Your task to perform on an android device: Open calendar and show me the fourth week of next month Image 0: 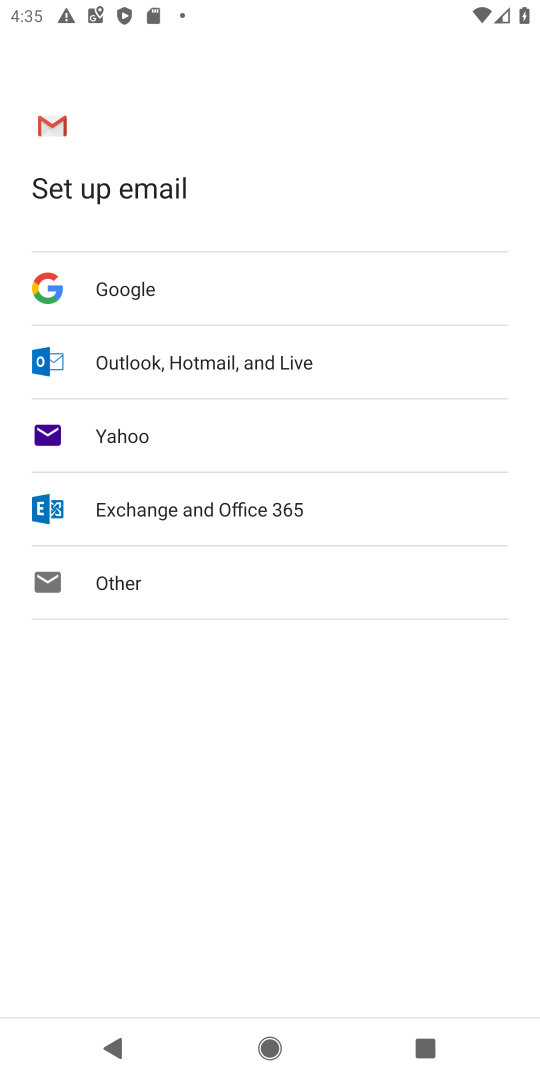
Step 0: press home button
Your task to perform on an android device: Open calendar and show me the fourth week of next month Image 1: 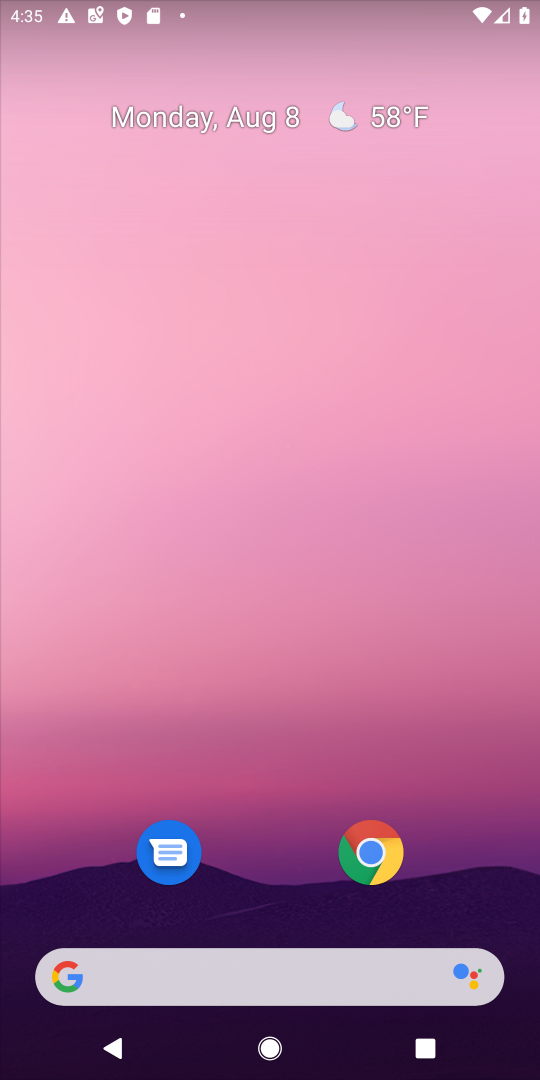
Step 1: drag from (216, 781) to (224, 41)
Your task to perform on an android device: Open calendar and show me the fourth week of next month Image 2: 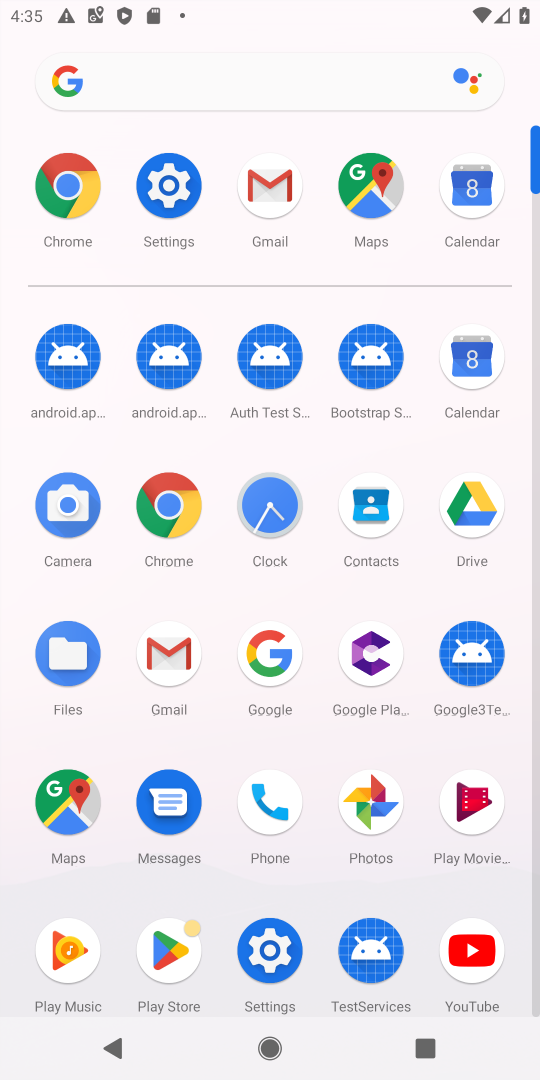
Step 2: click (469, 361)
Your task to perform on an android device: Open calendar and show me the fourth week of next month Image 3: 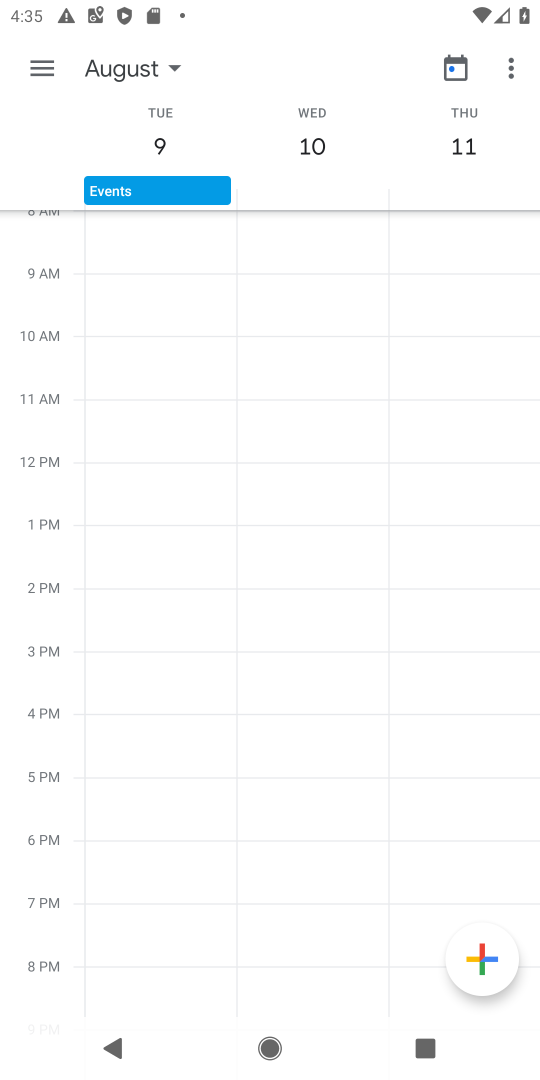
Step 3: click (103, 67)
Your task to perform on an android device: Open calendar and show me the fourth week of next month Image 4: 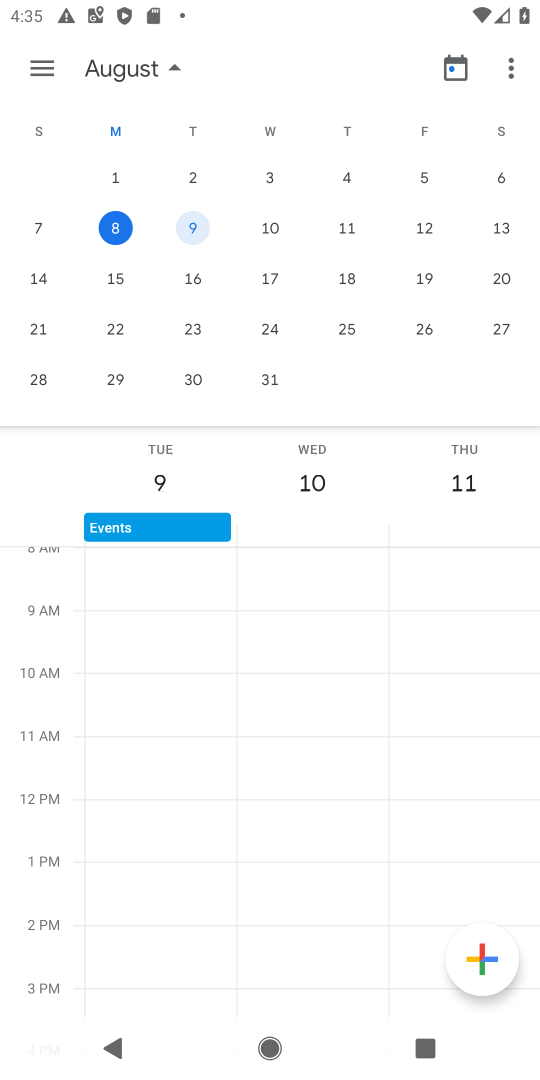
Step 4: drag from (258, 243) to (82, 247)
Your task to perform on an android device: Open calendar and show me the fourth week of next month Image 5: 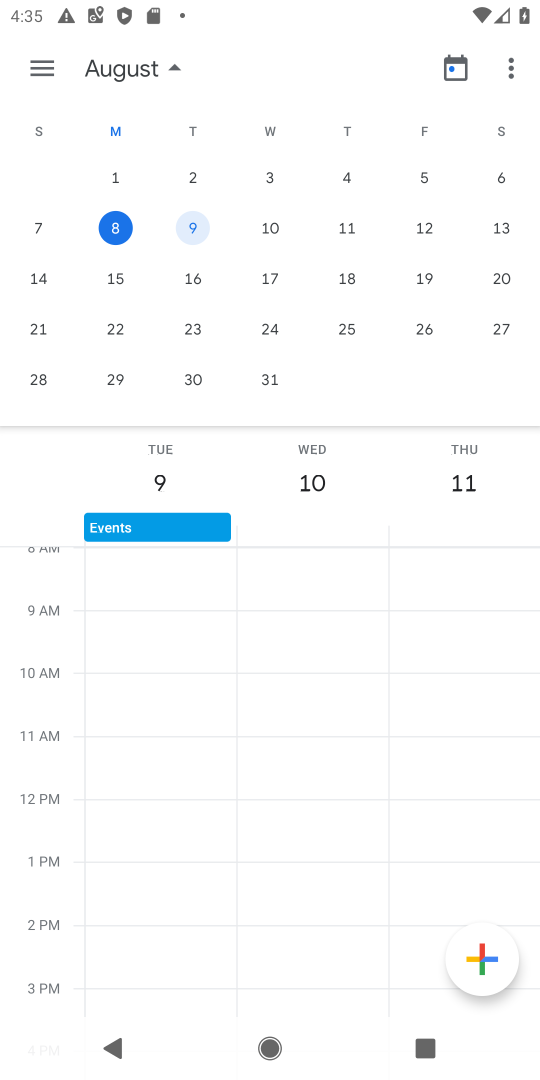
Step 5: drag from (483, 303) to (34, 277)
Your task to perform on an android device: Open calendar and show me the fourth week of next month Image 6: 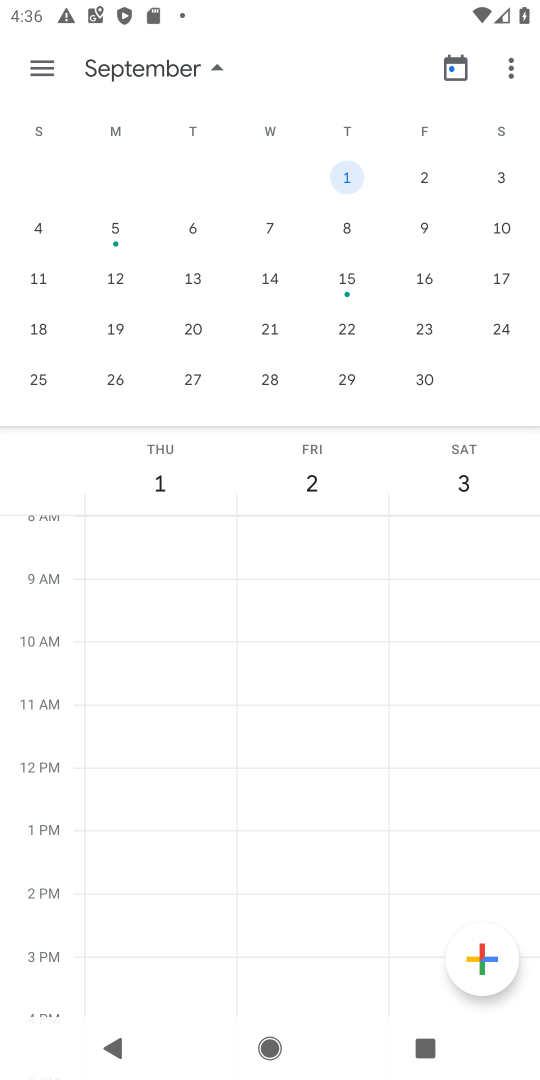
Step 6: click (129, 375)
Your task to perform on an android device: Open calendar and show me the fourth week of next month Image 7: 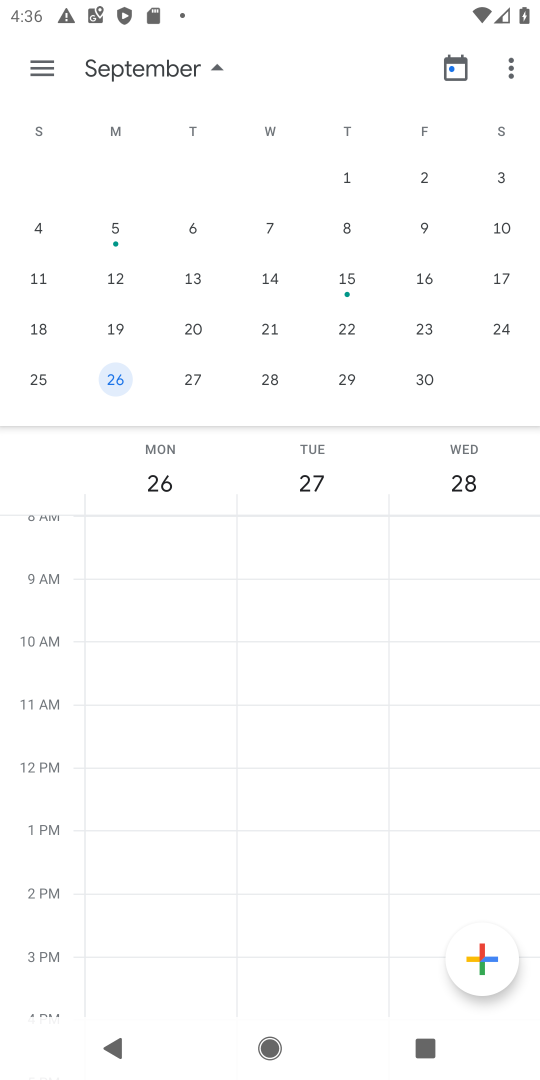
Step 7: click (42, 52)
Your task to perform on an android device: Open calendar and show me the fourth week of next month Image 8: 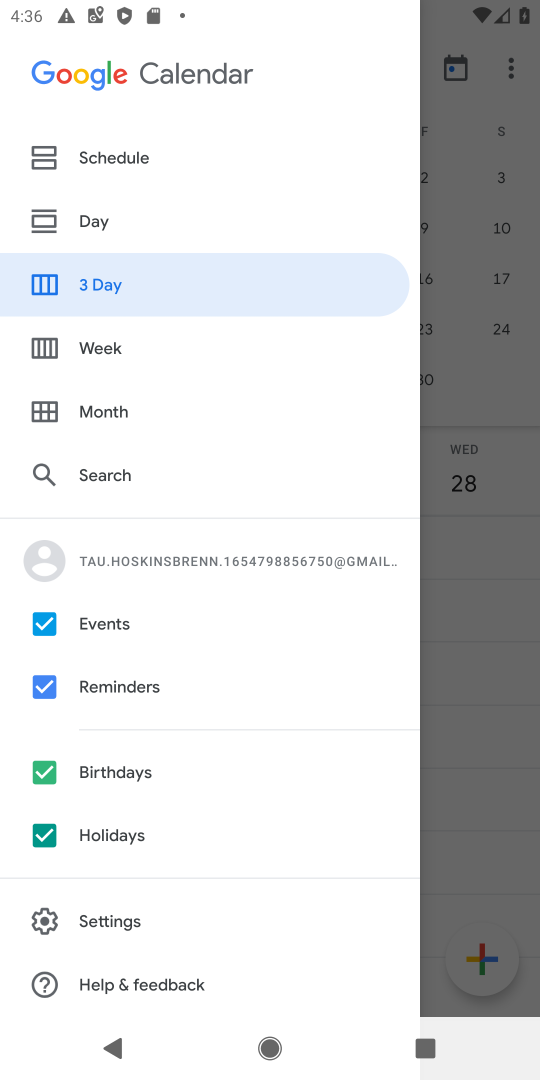
Step 8: click (69, 331)
Your task to perform on an android device: Open calendar and show me the fourth week of next month Image 9: 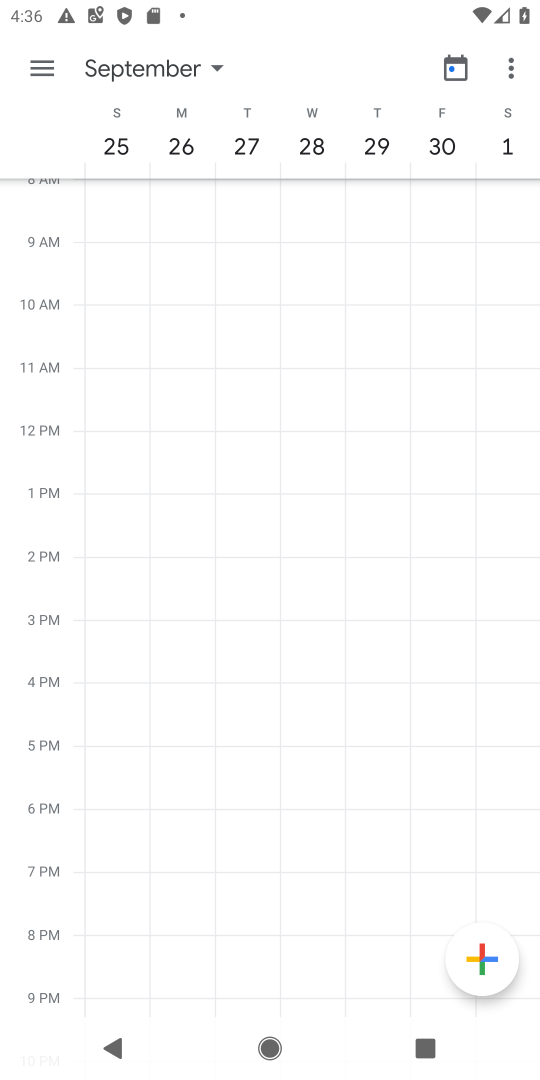
Step 9: task complete